Your task to perform on an android device: show emergency info Image 0: 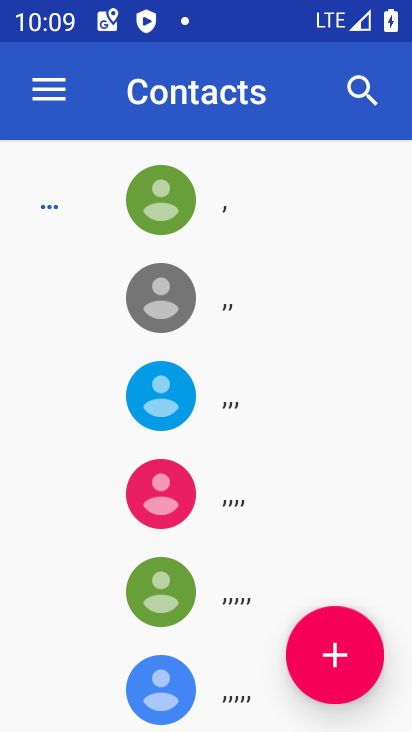
Step 0: press home button
Your task to perform on an android device: show emergency info Image 1: 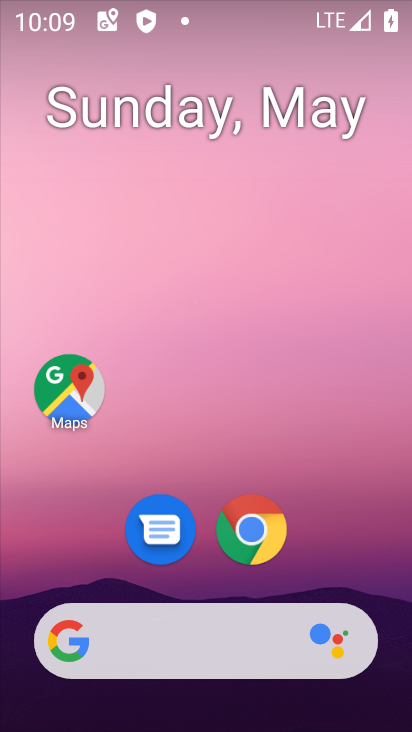
Step 1: drag from (340, 557) to (311, 5)
Your task to perform on an android device: show emergency info Image 2: 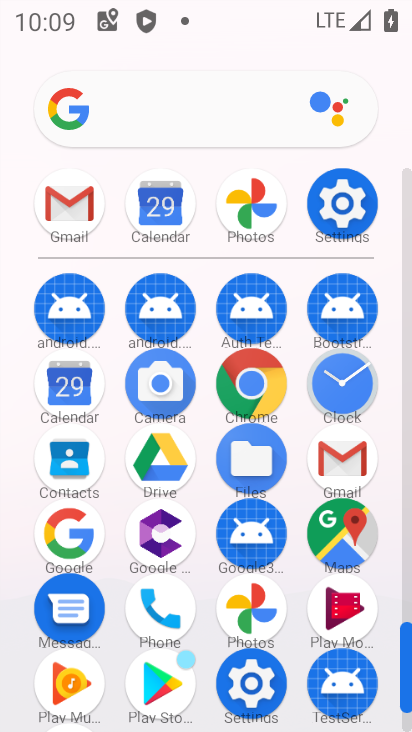
Step 2: click (333, 192)
Your task to perform on an android device: show emergency info Image 3: 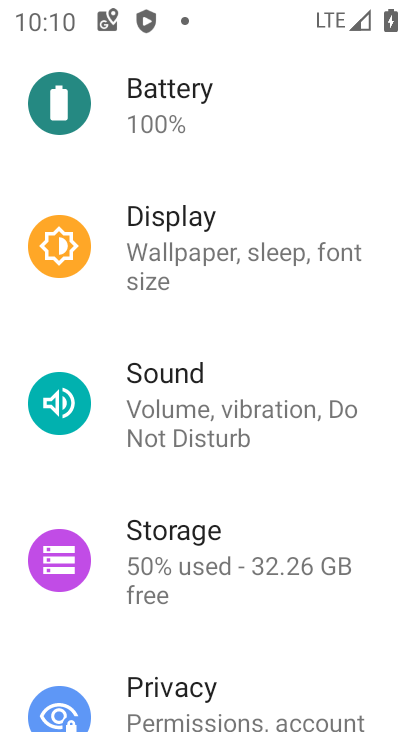
Step 3: drag from (226, 656) to (232, 217)
Your task to perform on an android device: show emergency info Image 4: 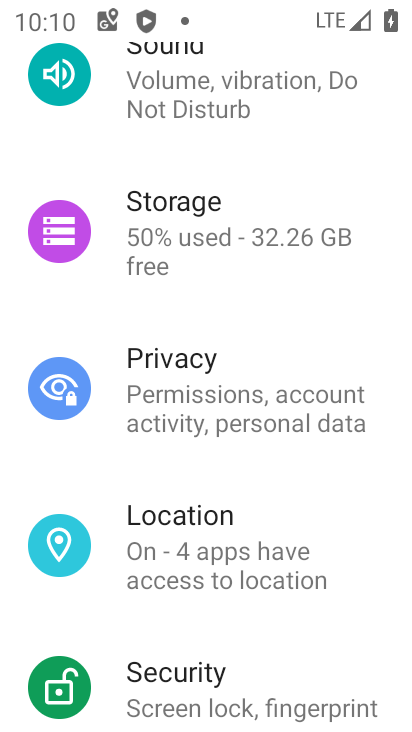
Step 4: drag from (291, 690) to (277, 156)
Your task to perform on an android device: show emergency info Image 5: 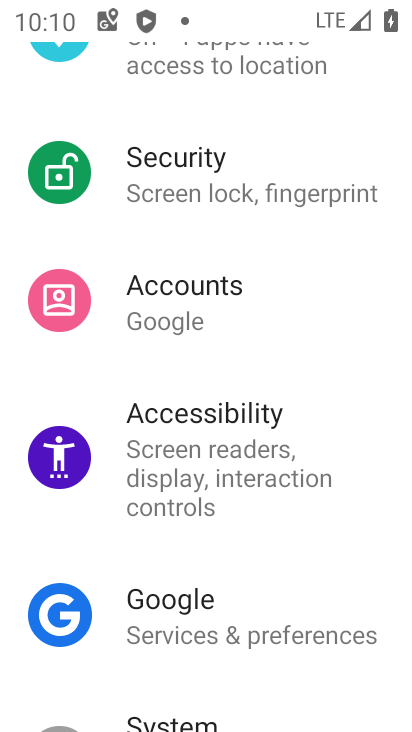
Step 5: drag from (212, 558) to (217, 24)
Your task to perform on an android device: show emergency info Image 6: 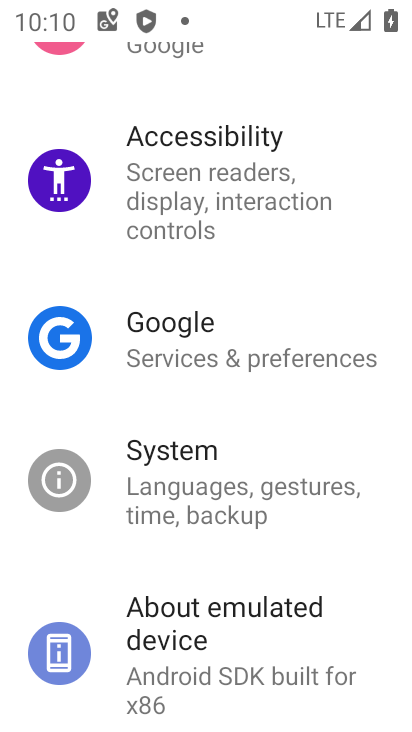
Step 6: click (250, 615)
Your task to perform on an android device: show emergency info Image 7: 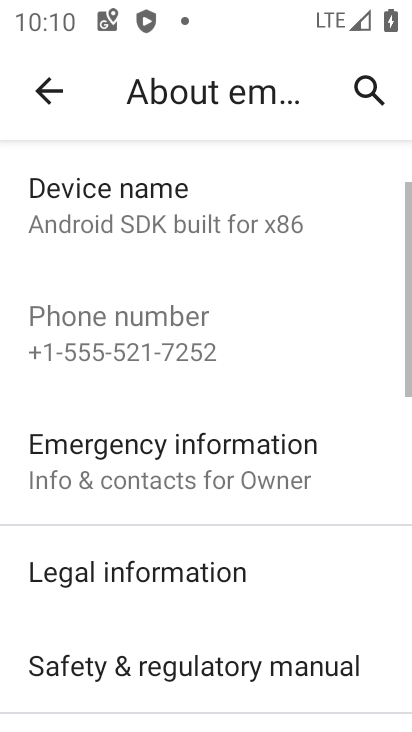
Step 7: click (192, 466)
Your task to perform on an android device: show emergency info Image 8: 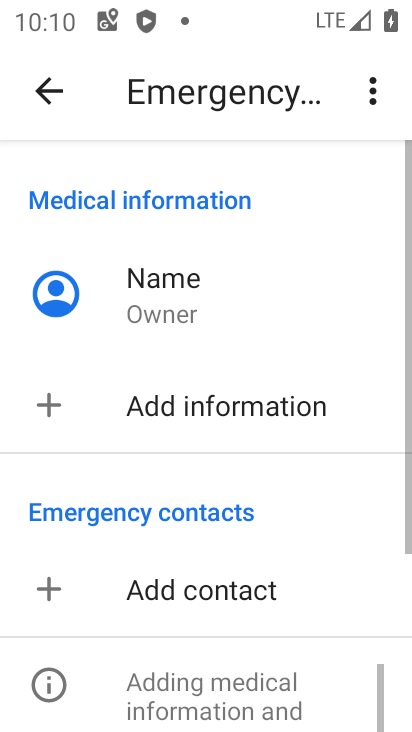
Step 8: task complete